Your task to perform on an android device: Open Reddit.com Image 0: 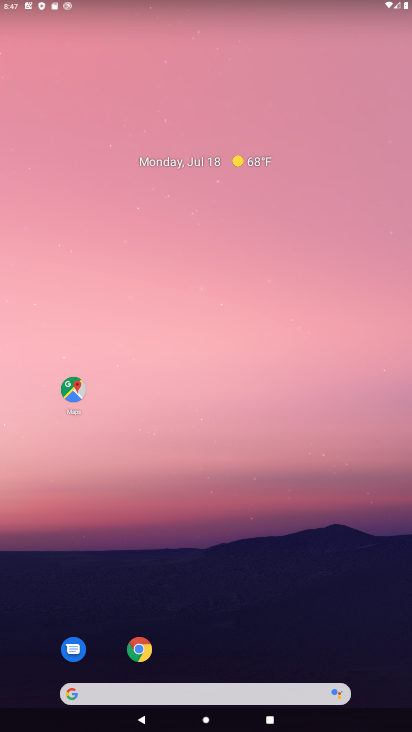
Step 0: click (152, 696)
Your task to perform on an android device: Open Reddit.com Image 1: 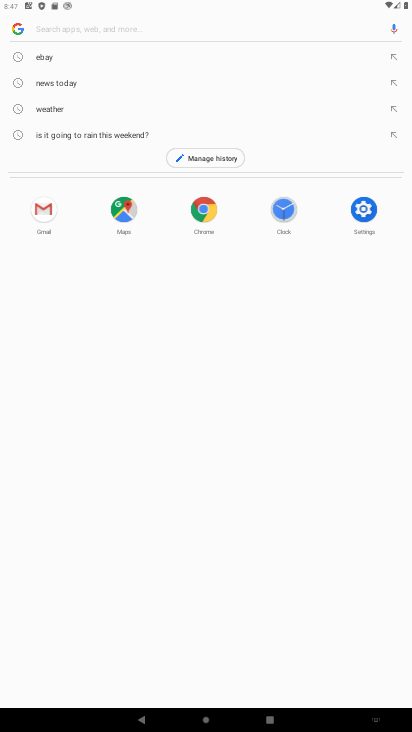
Step 1: type "reddit.com"
Your task to perform on an android device: Open Reddit.com Image 2: 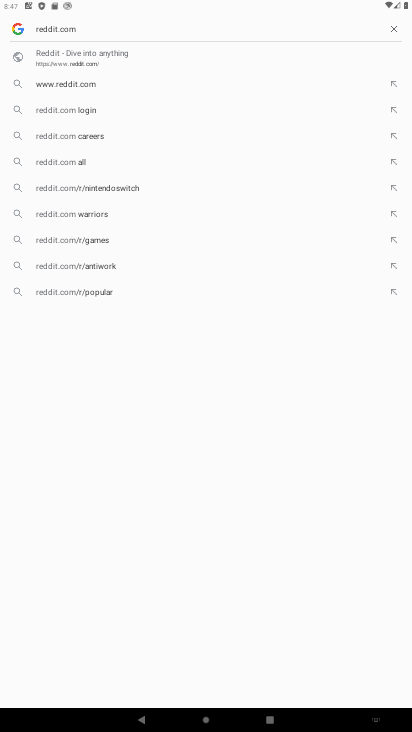
Step 2: click (104, 59)
Your task to perform on an android device: Open Reddit.com Image 3: 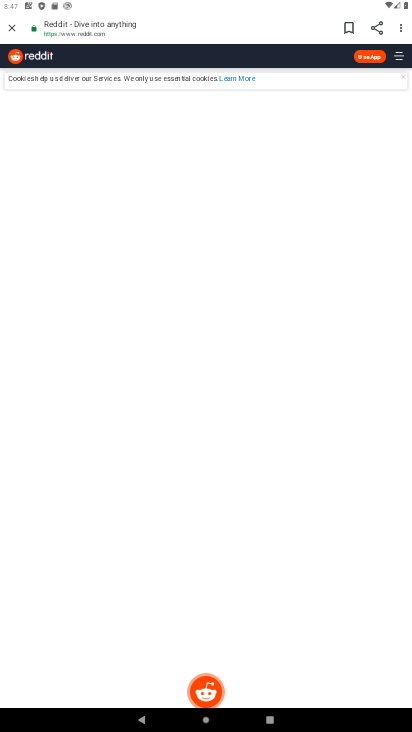
Step 3: task complete